Your task to perform on an android device: Open the calendar and show me this week's events? Image 0: 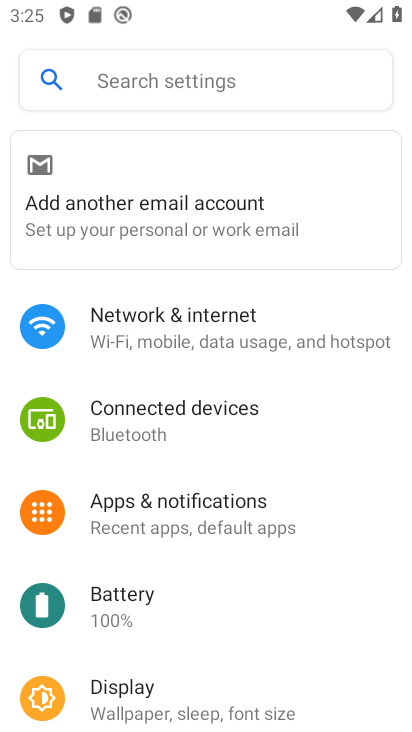
Step 0: press back button
Your task to perform on an android device: Open the calendar and show me this week's events? Image 1: 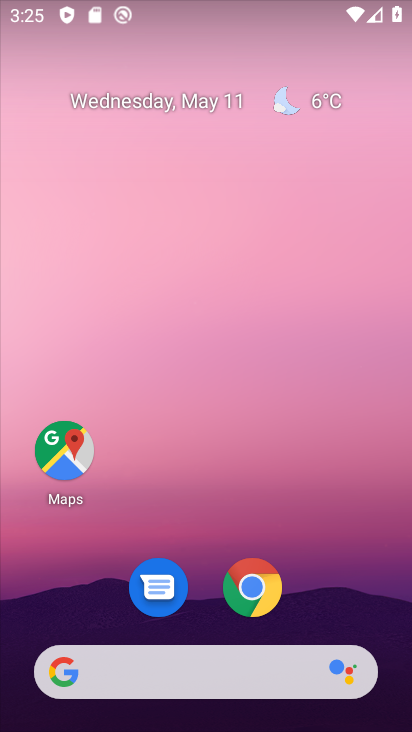
Step 1: drag from (346, 581) to (391, 289)
Your task to perform on an android device: Open the calendar and show me this week's events? Image 2: 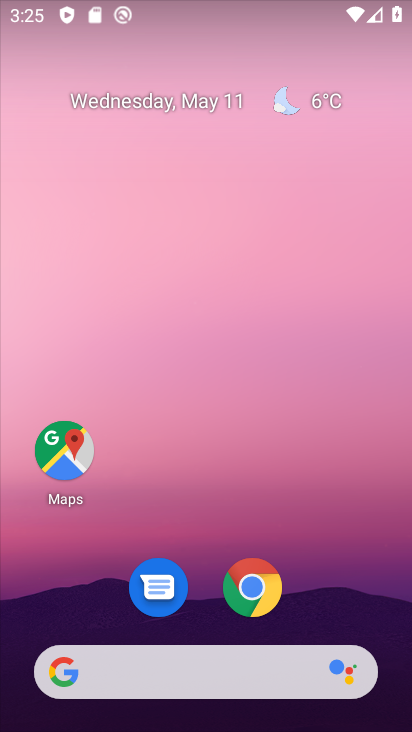
Step 2: drag from (286, 515) to (317, 31)
Your task to perform on an android device: Open the calendar and show me this week's events? Image 3: 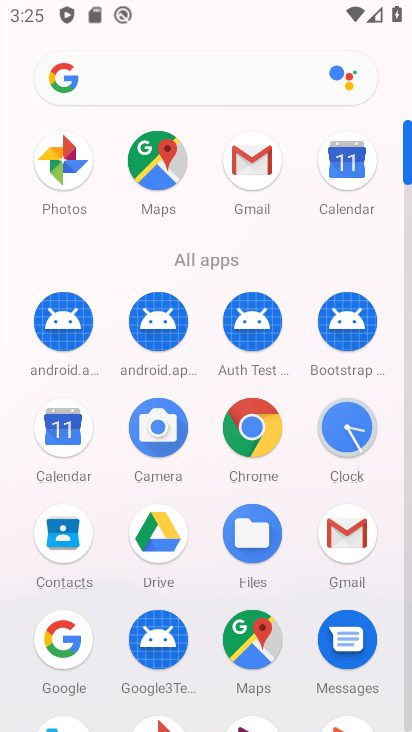
Step 3: click (68, 406)
Your task to perform on an android device: Open the calendar and show me this week's events? Image 4: 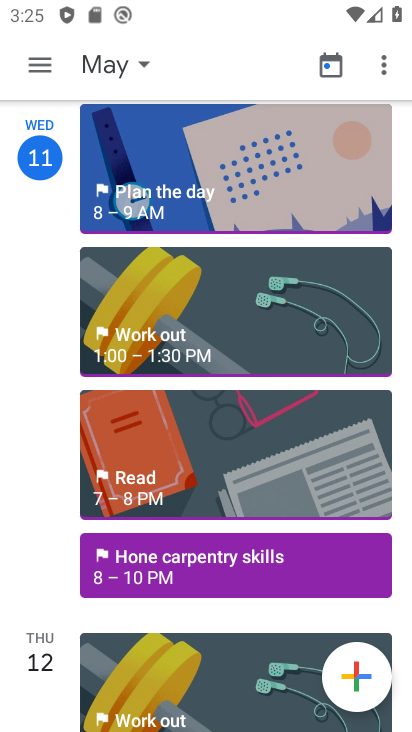
Step 4: click (44, 58)
Your task to perform on an android device: Open the calendar and show me this week's events? Image 5: 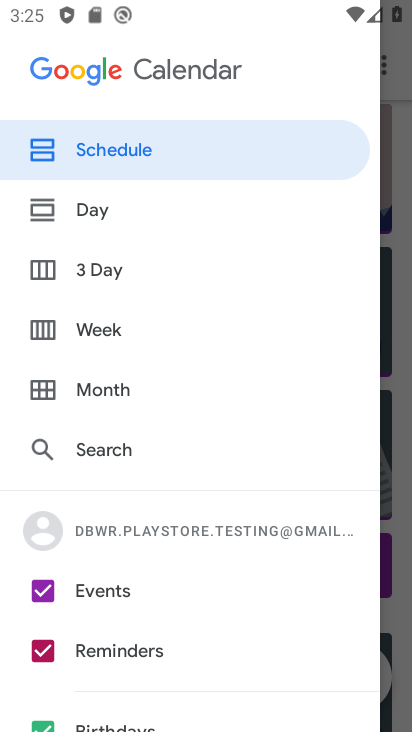
Step 5: click (55, 327)
Your task to perform on an android device: Open the calendar and show me this week's events? Image 6: 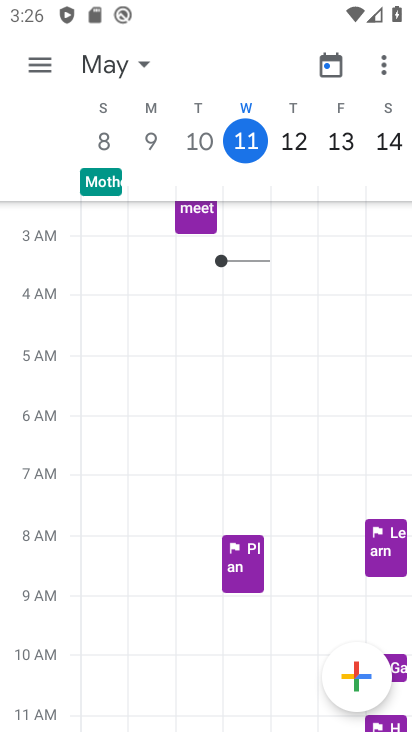
Step 6: task complete